Your task to perform on an android device: refresh tabs in the chrome app Image 0: 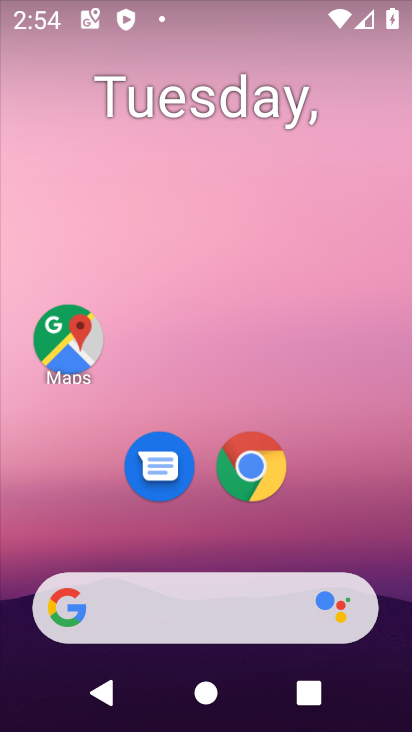
Step 0: click (259, 470)
Your task to perform on an android device: refresh tabs in the chrome app Image 1: 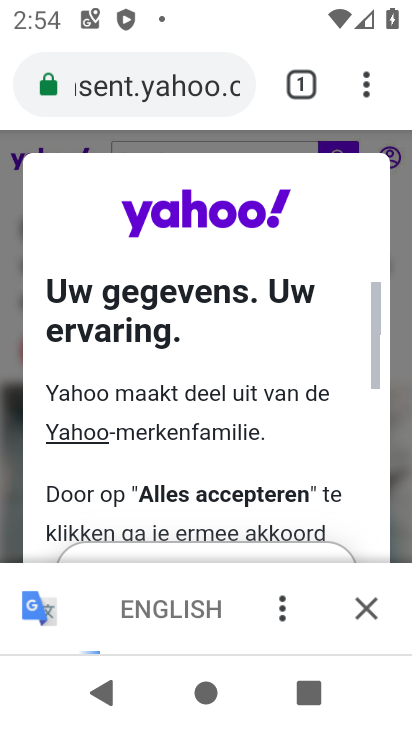
Step 1: task complete